Your task to perform on an android device: Open Youtube and go to "Your channel" Image 0: 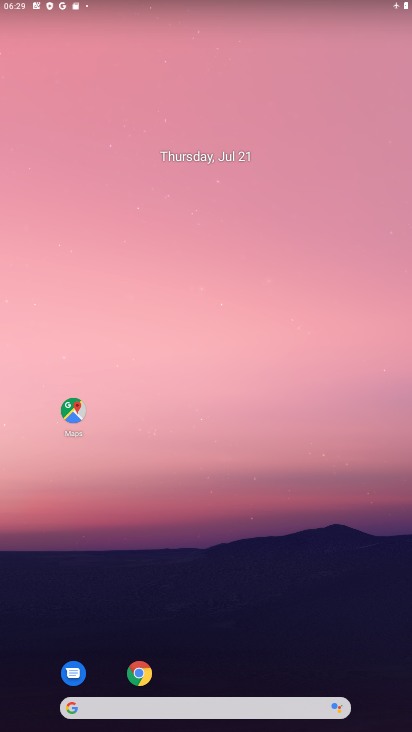
Step 0: drag from (184, 395) to (221, 51)
Your task to perform on an android device: Open Youtube and go to "Your channel" Image 1: 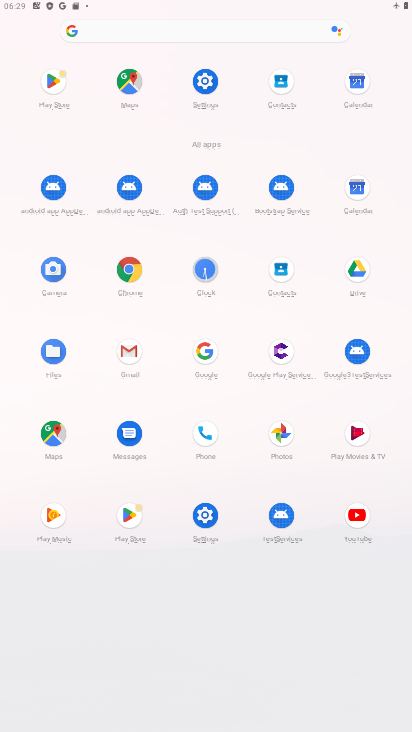
Step 1: click (242, 133)
Your task to perform on an android device: Open Youtube and go to "Your channel" Image 2: 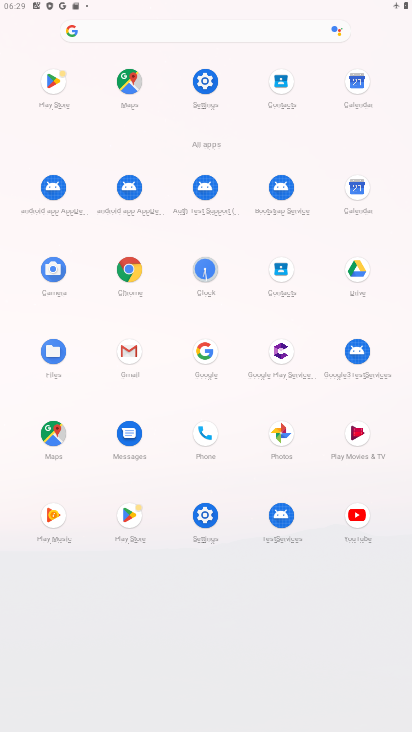
Step 2: click (356, 511)
Your task to perform on an android device: Open Youtube and go to "Your channel" Image 3: 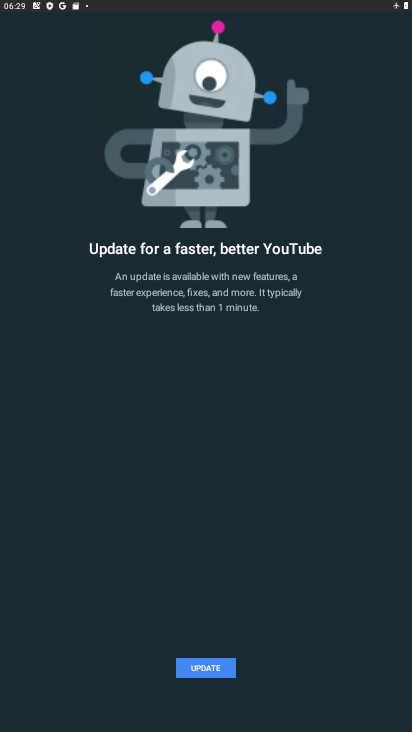
Step 3: click (196, 668)
Your task to perform on an android device: Open Youtube and go to "Your channel" Image 4: 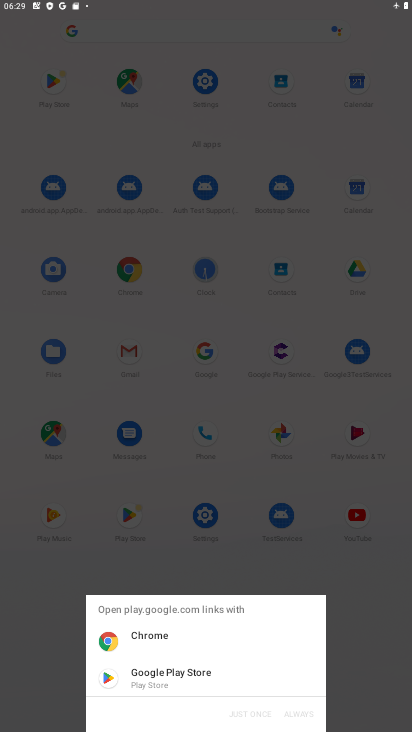
Step 4: click (192, 684)
Your task to perform on an android device: Open Youtube and go to "Your channel" Image 5: 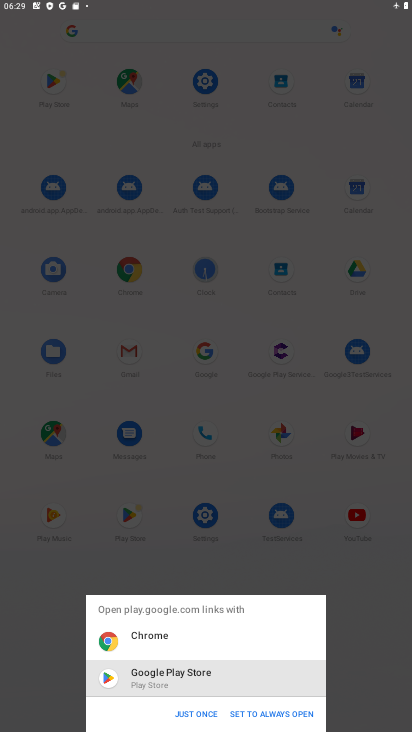
Step 5: click (275, 712)
Your task to perform on an android device: Open Youtube and go to "Your channel" Image 6: 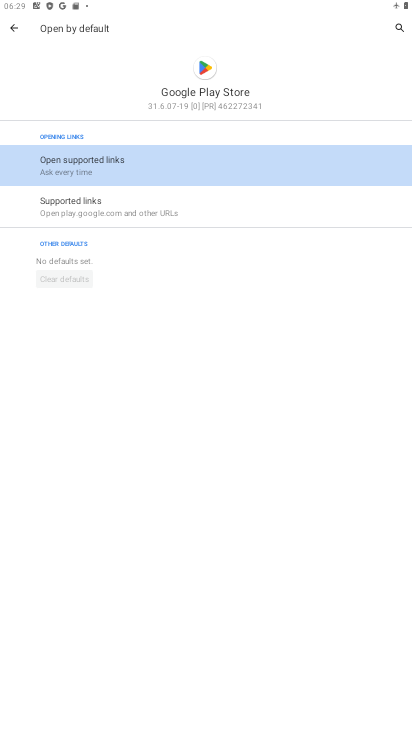
Step 6: click (121, 154)
Your task to perform on an android device: Open Youtube and go to "Your channel" Image 7: 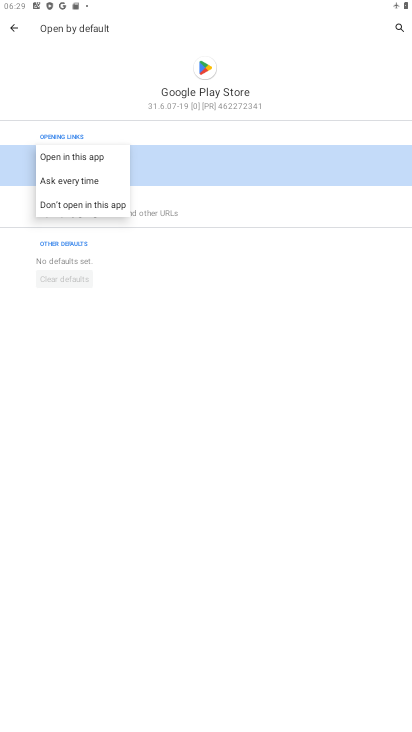
Step 7: click (80, 161)
Your task to perform on an android device: Open Youtube and go to "Your channel" Image 8: 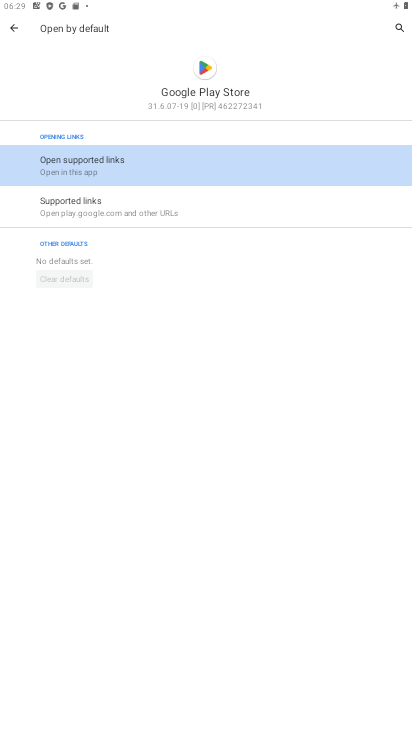
Step 8: click (18, 25)
Your task to perform on an android device: Open Youtube and go to "Your channel" Image 9: 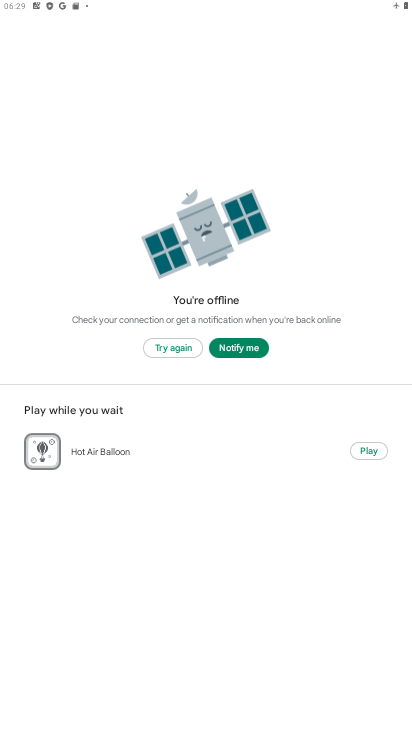
Step 9: press back button
Your task to perform on an android device: Open Youtube and go to "Your channel" Image 10: 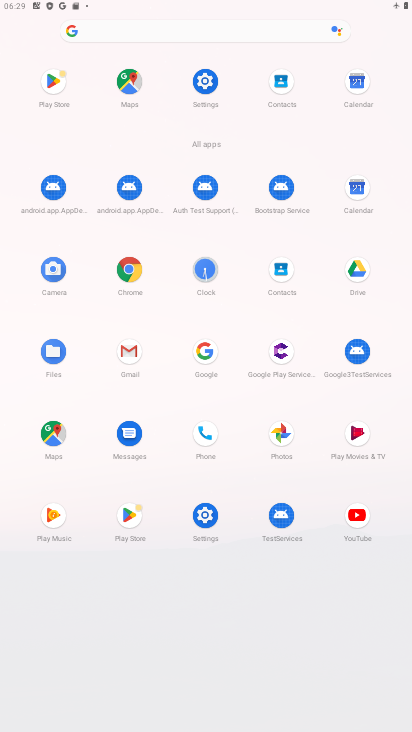
Step 10: click (198, 523)
Your task to perform on an android device: Open Youtube and go to "Your channel" Image 11: 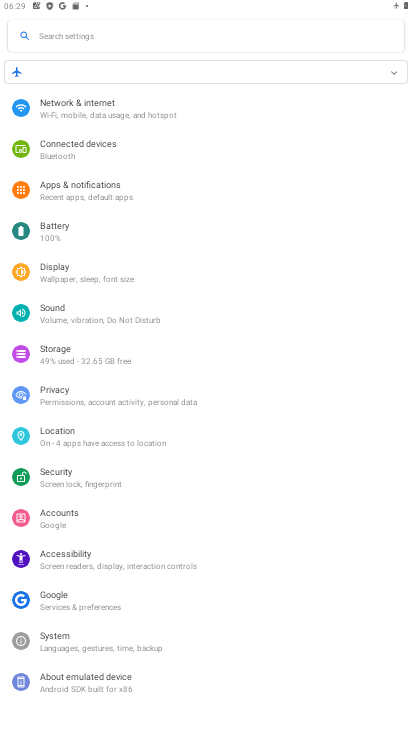
Step 11: click (377, 72)
Your task to perform on an android device: Open Youtube and go to "Your channel" Image 12: 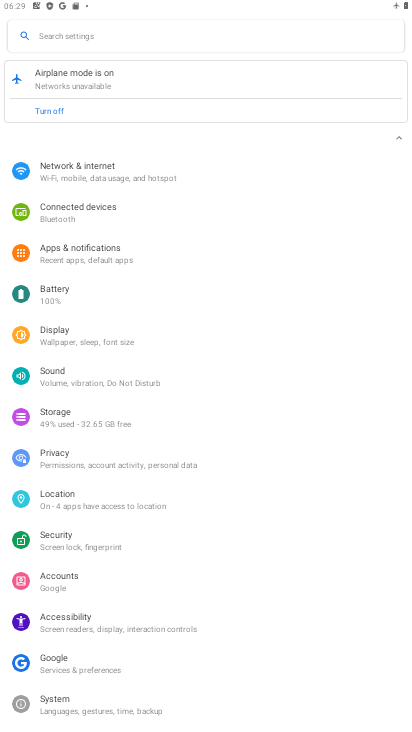
Step 12: click (52, 112)
Your task to perform on an android device: Open Youtube and go to "Your channel" Image 13: 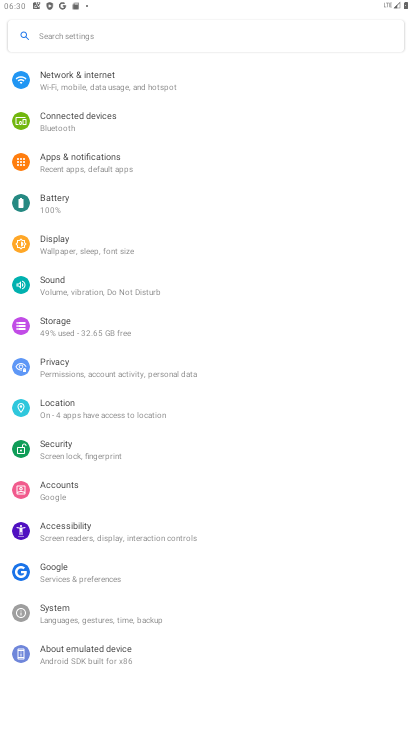
Step 13: press home button
Your task to perform on an android device: Open Youtube and go to "Your channel" Image 14: 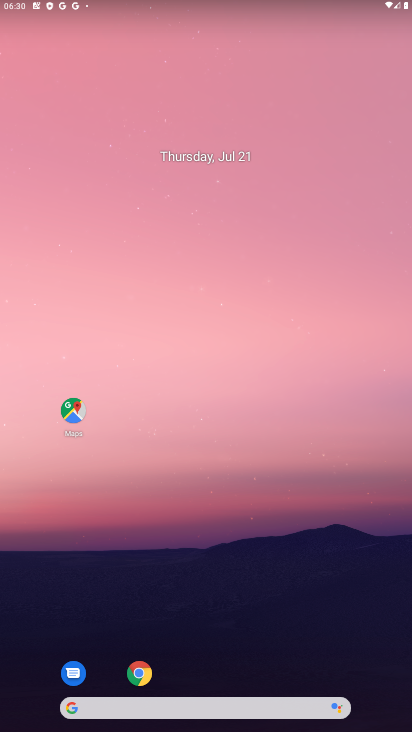
Step 14: drag from (205, 587) to (338, 83)
Your task to perform on an android device: Open Youtube and go to "Your channel" Image 15: 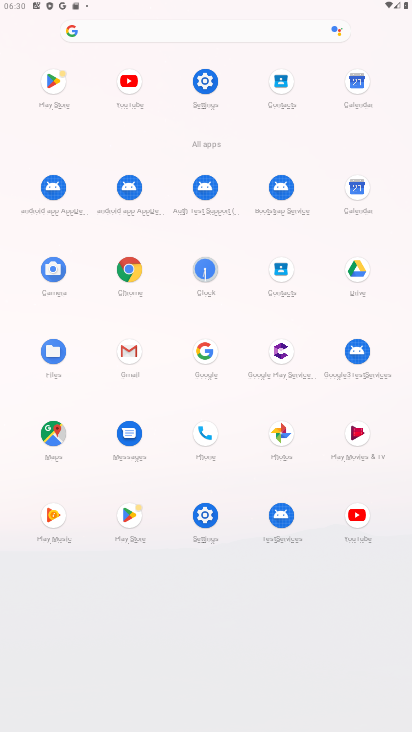
Step 15: click (357, 532)
Your task to perform on an android device: Open Youtube and go to "Your channel" Image 16: 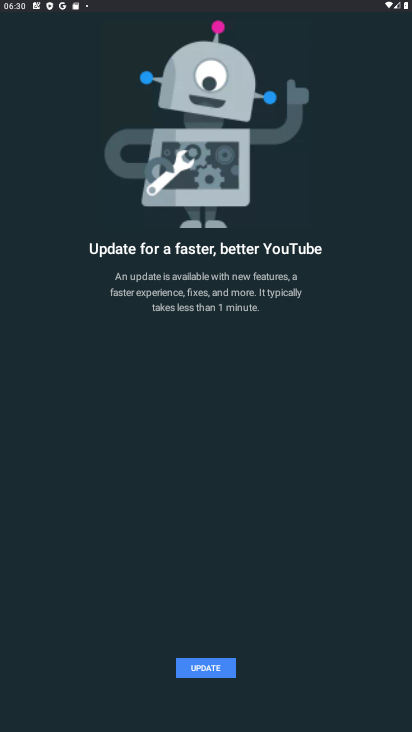
Step 16: click (197, 674)
Your task to perform on an android device: Open Youtube and go to "Your channel" Image 17: 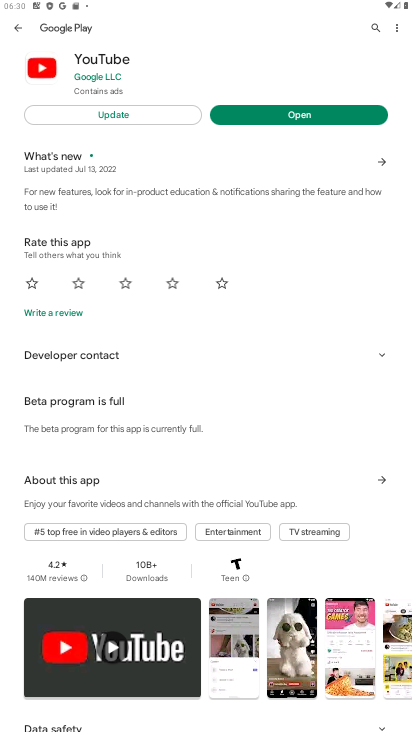
Step 17: click (127, 116)
Your task to perform on an android device: Open Youtube and go to "Your channel" Image 18: 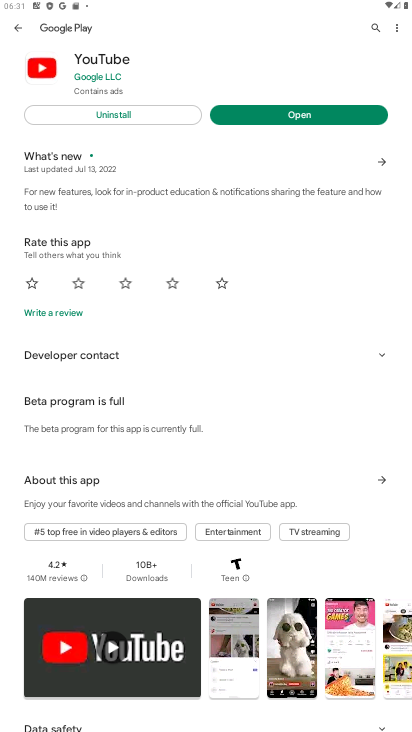
Step 18: click (286, 117)
Your task to perform on an android device: Open Youtube and go to "Your channel" Image 19: 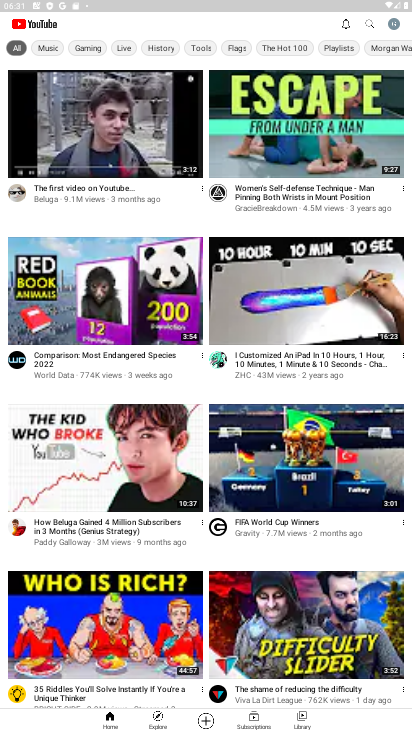
Step 19: click (390, 24)
Your task to perform on an android device: Open Youtube and go to "Your channel" Image 20: 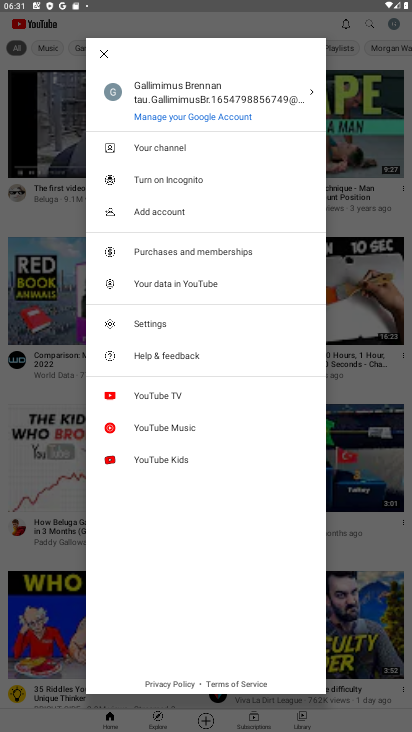
Step 20: click (169, 144)
Your task to perform on an android device: Open Youtube and go to "Your channel" Image 21: 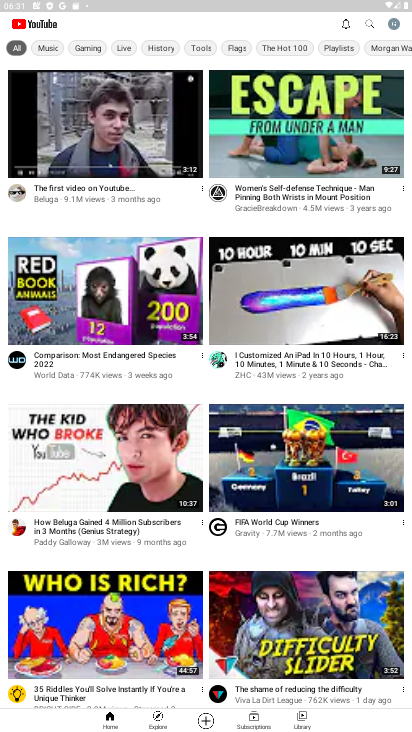
Step 21: task complete